Your task to perform on an android device: Open Google Maps and go to "Timeline" Image 0: 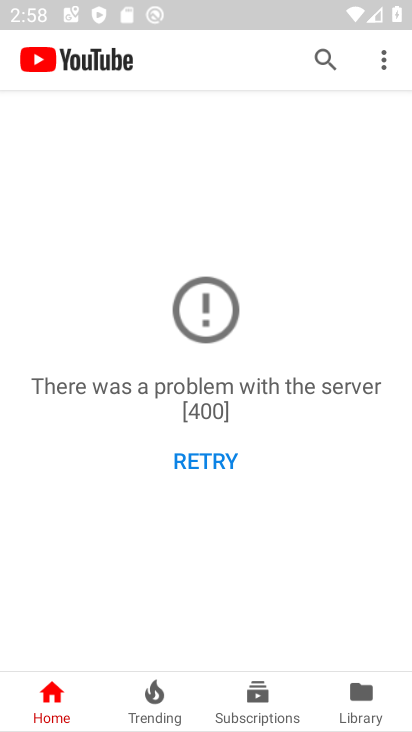
Step 0: press home button
Your task to perform on an android device: Open Google Maps and go to "Timeline" Image 1: 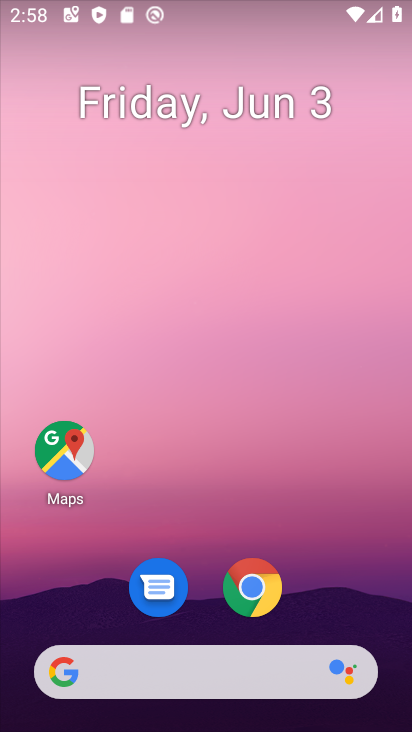
Step 1: drag from (238, 710) to (222, 60)
Your task to perform on an android device: Open Google Maps and go to "Timeline" Image 2: 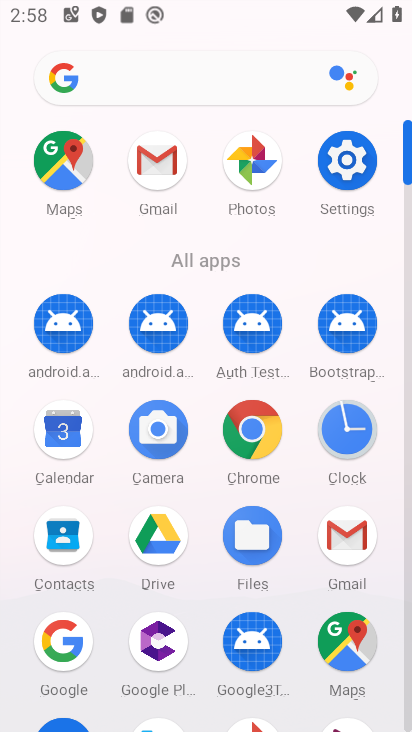
Step 2: drag from (284, 538) to (275, 264)
Your task to perform on an android device: Open Google Maps and go to "Timeline" Image 3: 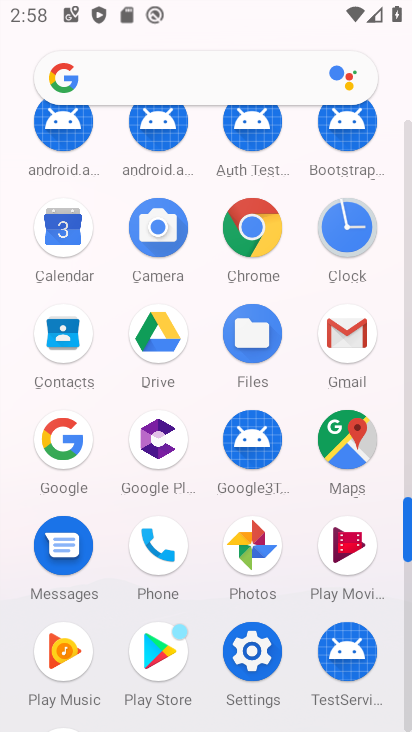
Step 3: click (346, 438)
Your task to perform on an android device: Open Google Maps and go to "Timeline" Image 4: 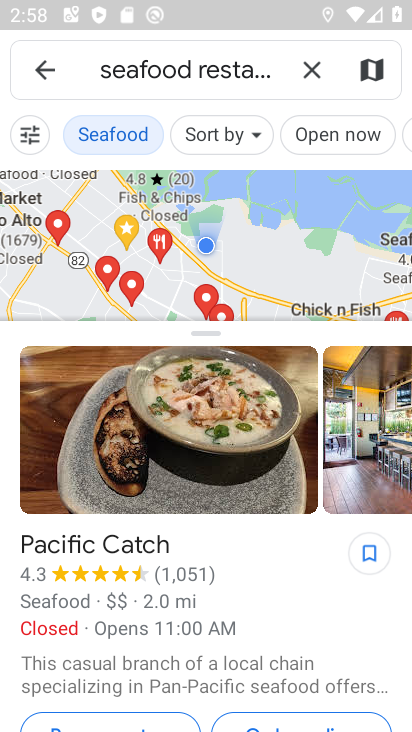
Step 4: click (35, 69)
Your task to perform on an android device: Open Google Maps and go to "Timeline" Image 5: 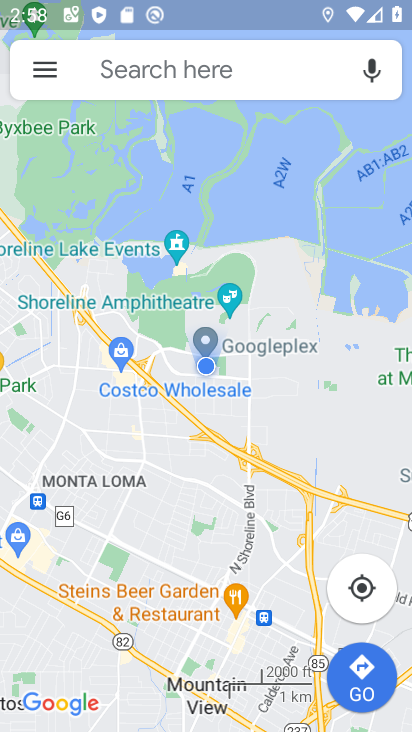
Step 5: click (46, 71)
Your task to perform on an android device: Open Google Maps and go to "Timeline" Image 6: 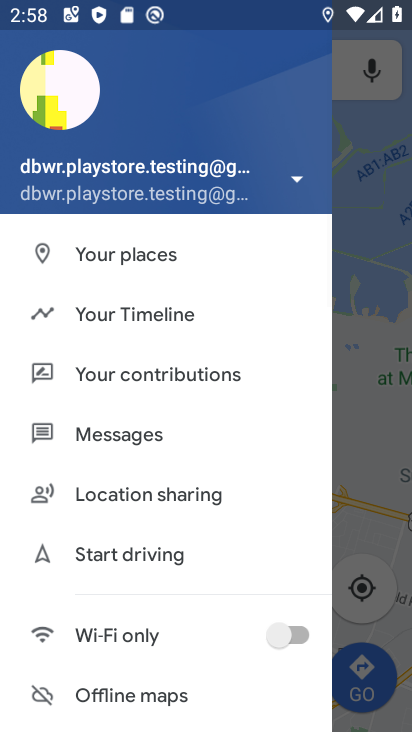
Step 6: click (113, 311)
Your task to perform on an android device: Open Google Maps and go to "Timeline" Image 7: 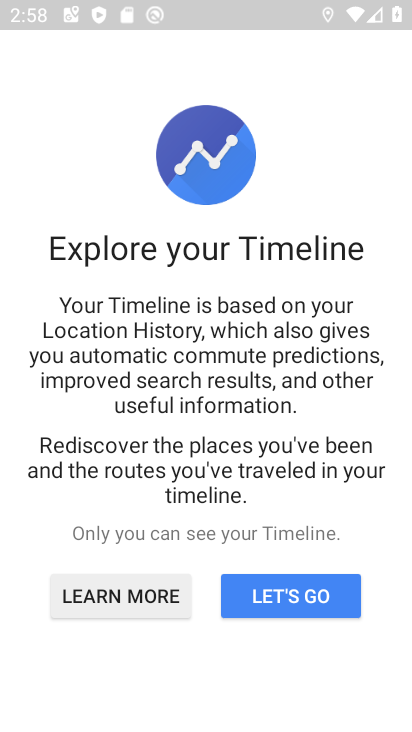
Step 7: click (263, 597)
Your task to perform on an android device: Open Google Maps and go to "Timeline" Image 8: 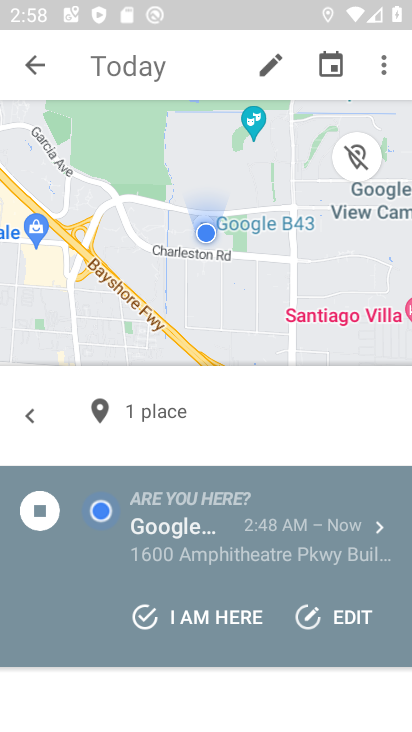
Step 8: task complete